Your task to perform on an android device: Go to Yahoo.com Image 0: 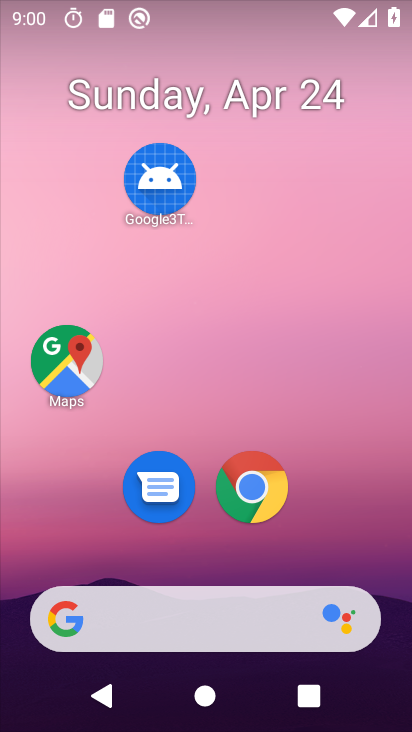
Step 0: click (266, 505)
Your task to perform on an android device: Go to Yahoo.com Image 1: 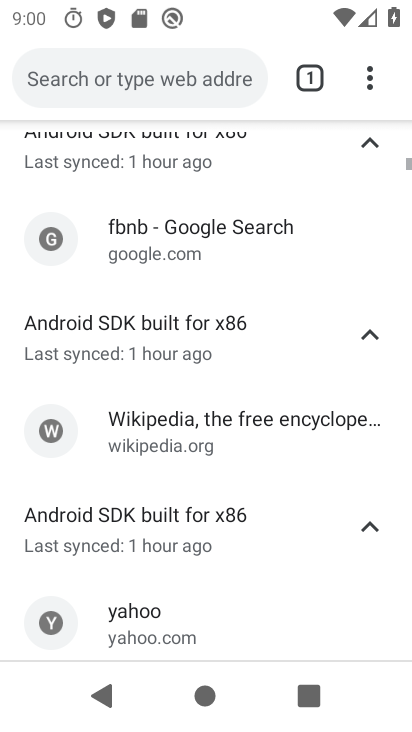
Step 1: click (318, 72)
Your task to perform on an android device: Go to Yahoo.com Image 2: 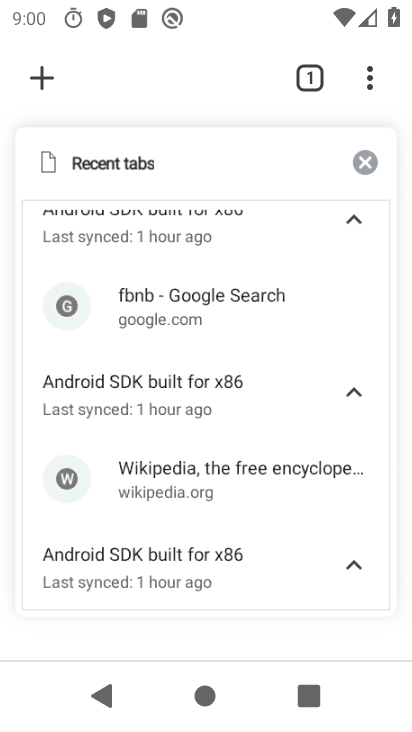
Step 2: click (307, 218)
Your task to perform on an android device: Go to Yahoo.com Image 3: 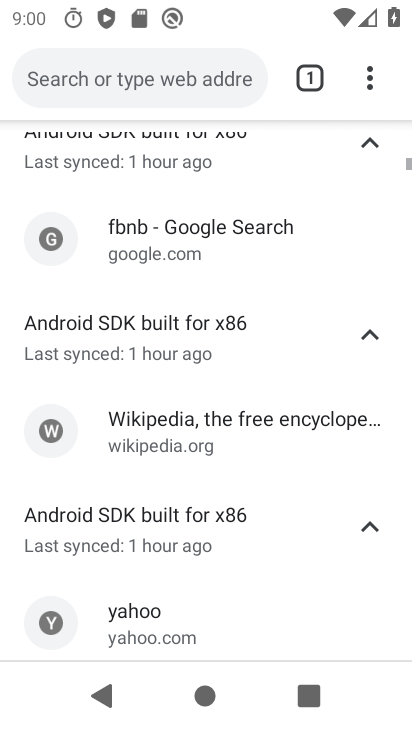
Step 3: click (107, 623)
Your task to perform on an android device: Go to Yahoo.com Image 4: 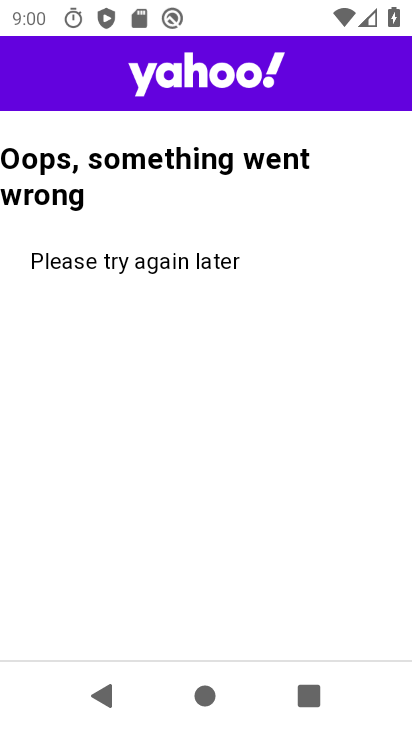
Step 4: drag from (182, 597) to (199, 375)
Your task to perform on an android device: Go to Yahoo.com Image 5: 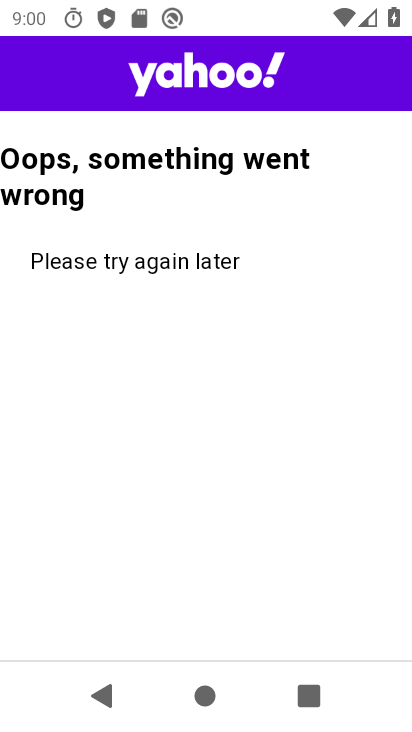
Step 5: click (207, 255)
Your task to perform on an android device: Go to Yahoo.com Image 6: 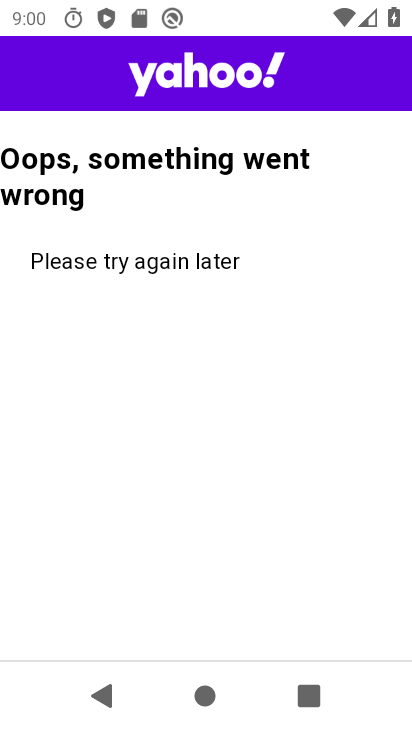
Step 6: click (207, 255)
Your task to perform on an android device: Go to Yahoo.com Image 7: 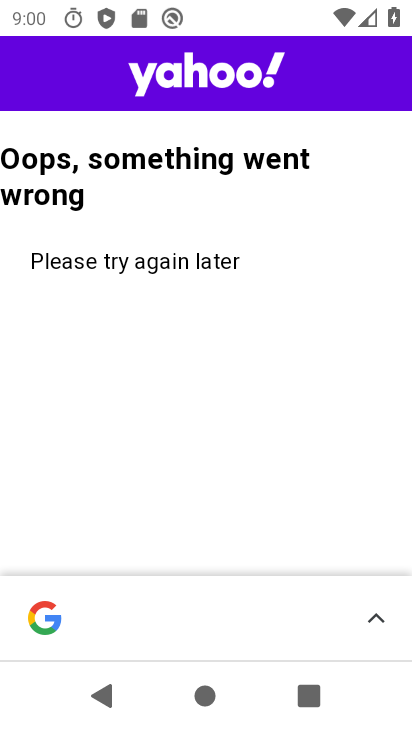
Step 7: click (204, 210)
Your task to perform on an android device: Go to Yahoo.com Image 8: 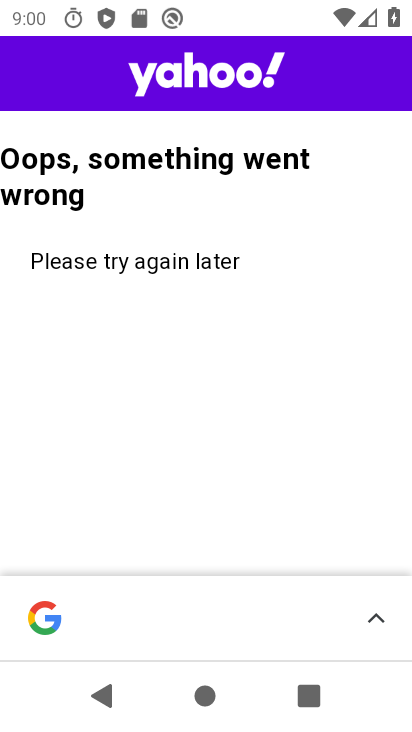
Step 8: click (329, 159)
Your task to perform on an android device: Go to Yahoo.com Image 9: 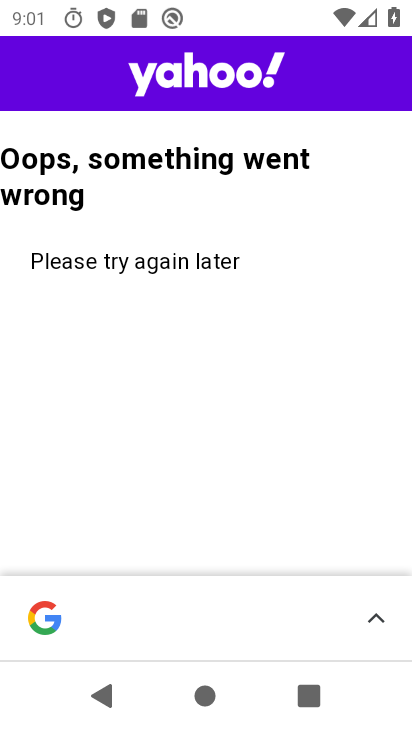
Step 9: task complete